Your task to perform on an android device: install app "Etsy: Buy & Sell Unique Items" Image 0: 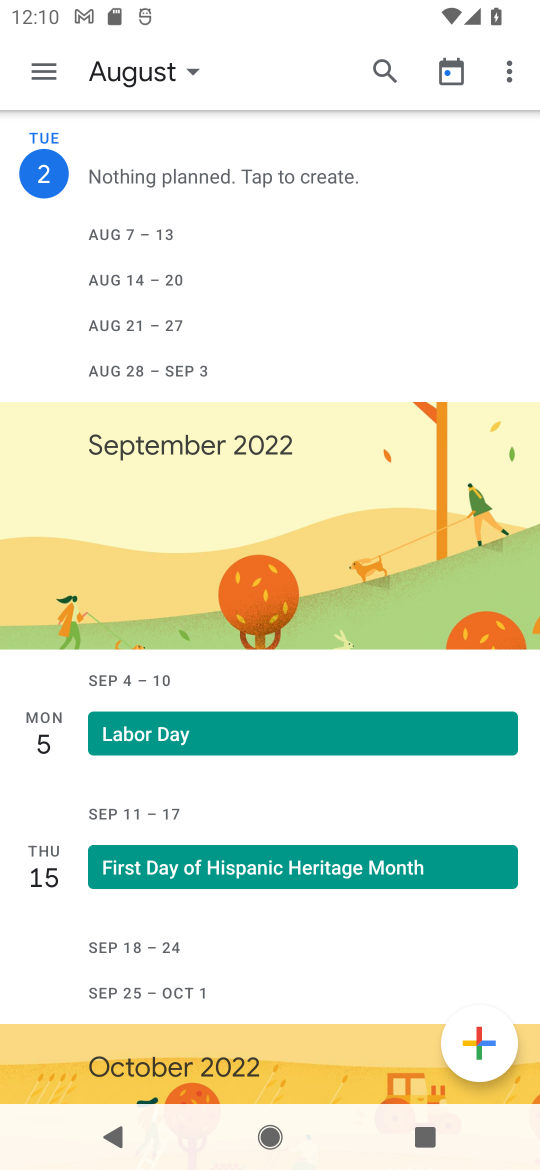
Step 0: press home button
Your task to perform on an android device: install app "Etsy: Buy & Sell Unique Items" Image 1: 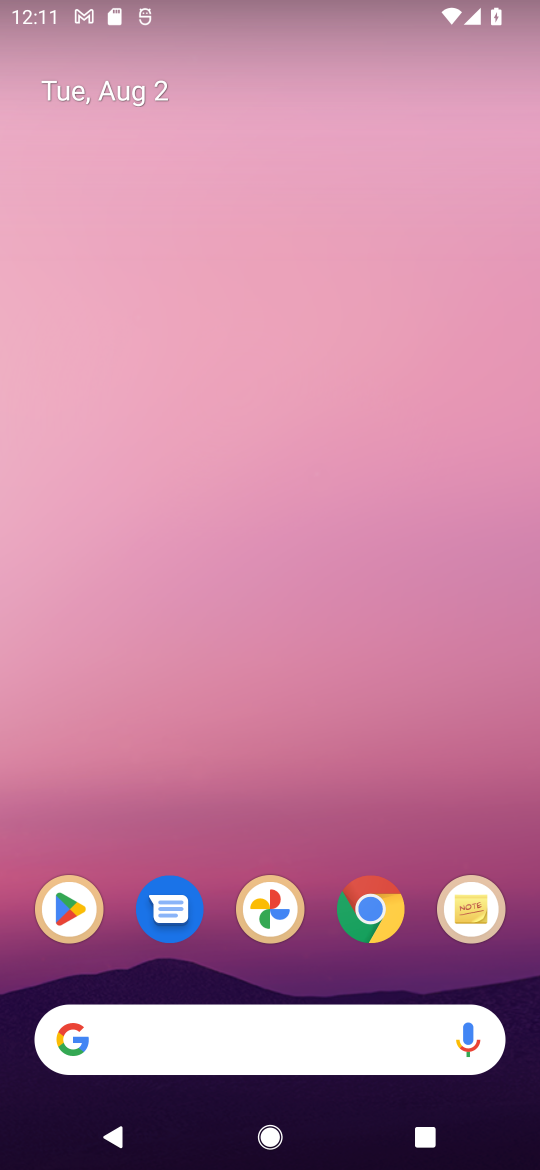
Step 1: click (79, 908)
Your task to perform on an android device: install app "Etsy: Buy & Sell Unique Items" Image 2: 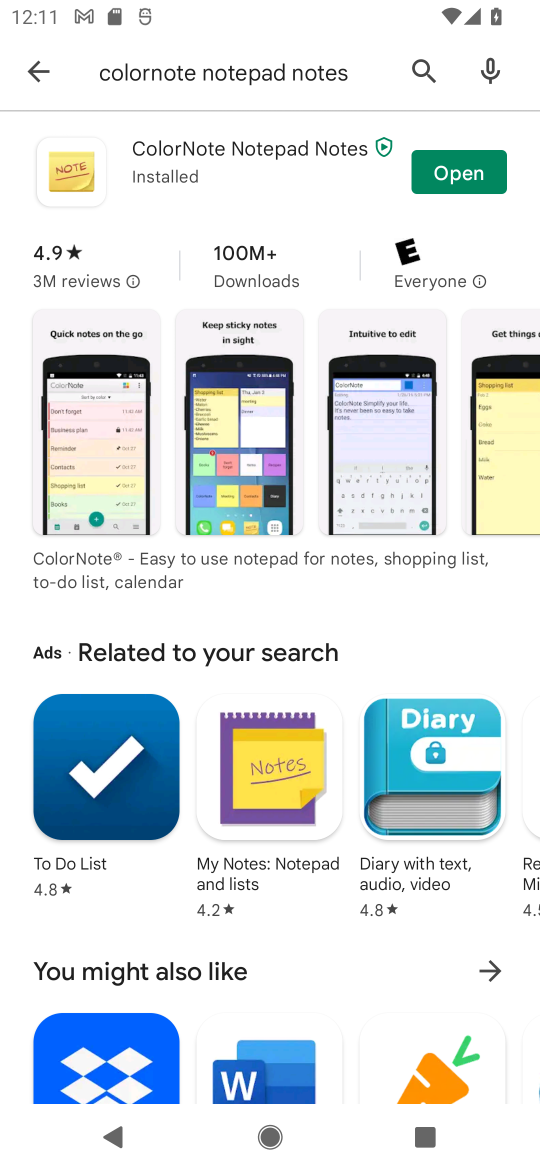
Step 2: click (422, 63)
Your task to perform on an android device: install app "Etsy: Buy & Sell Unique Items" Image 3: 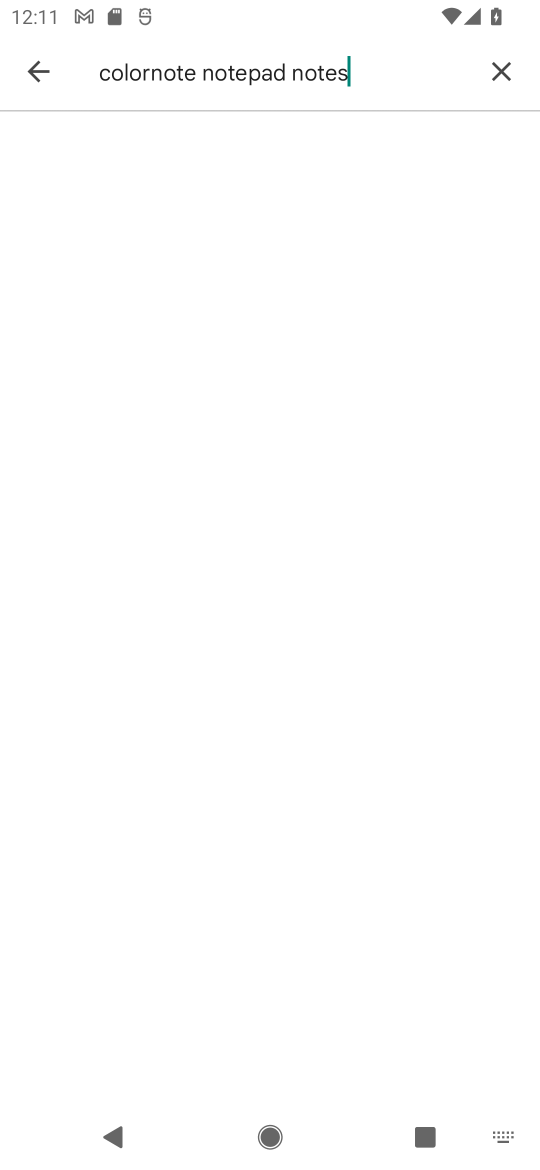
Step 3: click (488, 69)
Your task to perform on an android device: install app "Etsy: Buy & Sell Unique Items" Image 4: 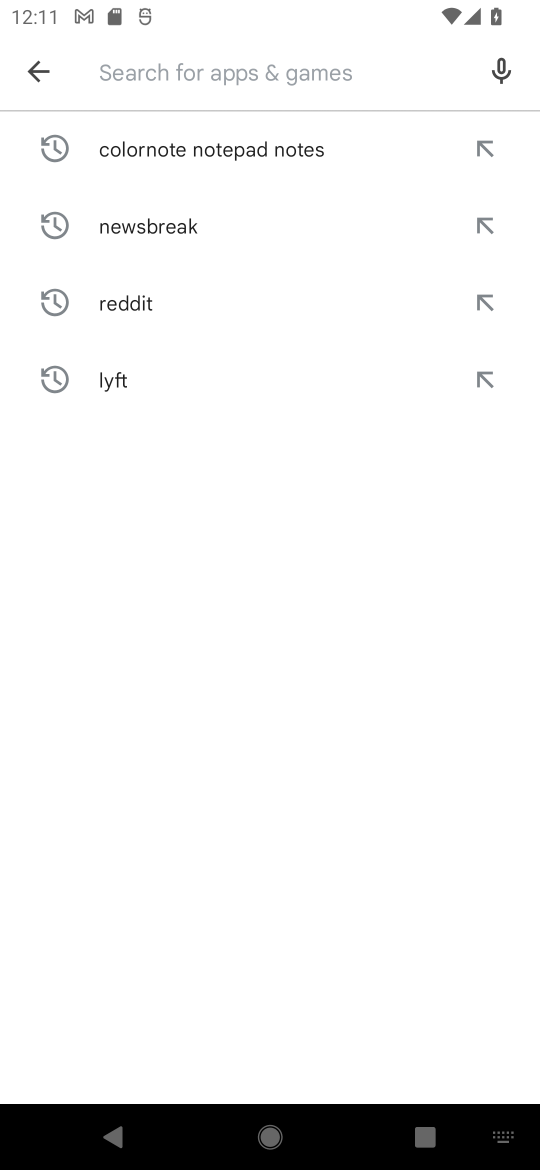
Step 4: type "Etsy: Buy & Sell Unique Items"
Your task to perform on an android device: install app "Etsy: Buy & Sell Unique Items" Image 5: 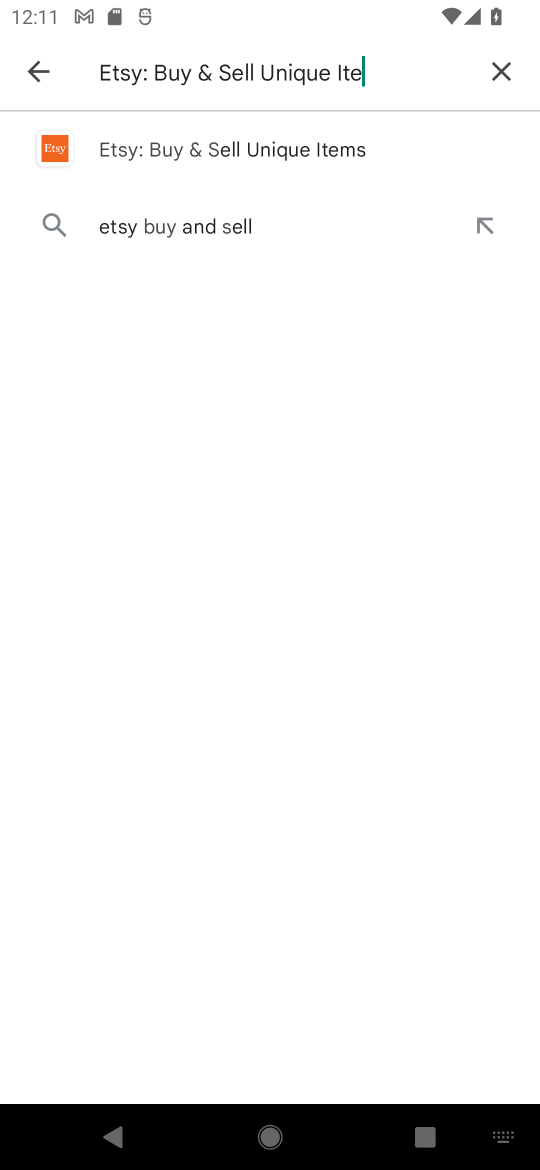
Step 5: type ""
Your task to perform on an android device: install app "Etsy: Buy & Sell Unique Items" Image 6: 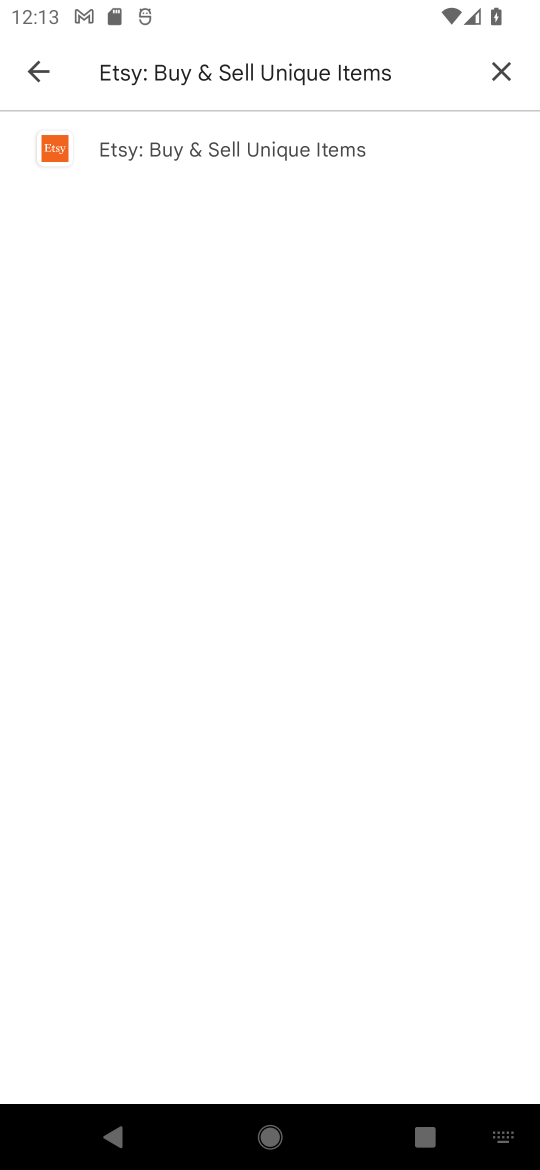
Step 6: click (266, 157)
Your task to perform on an android device: install app "Etsy: Buy & Sell Unique Items" Image 7: 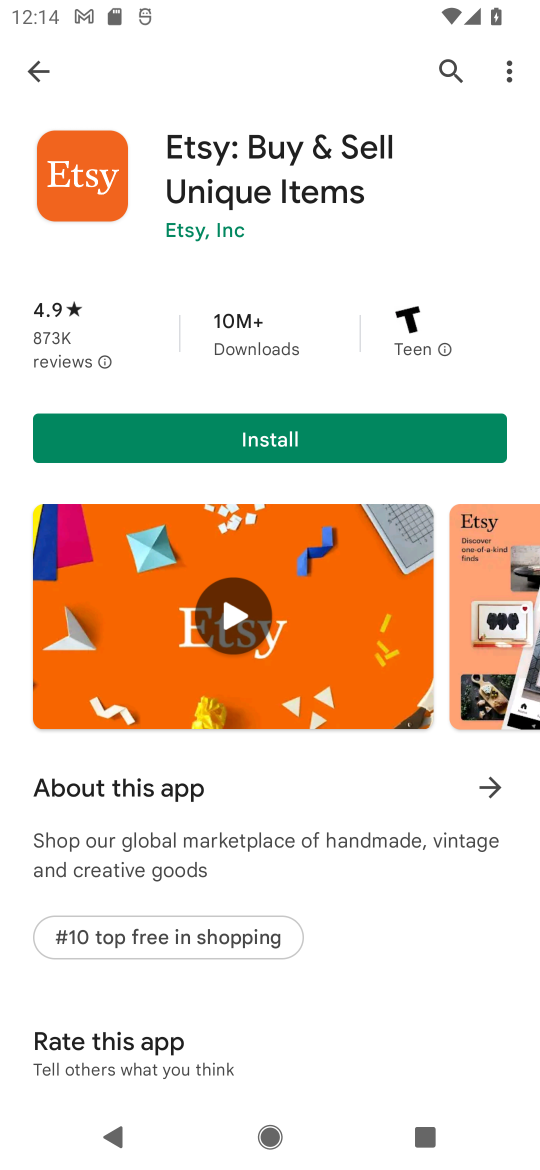
Step 7: click (424, 421)
Your task to perform on an android device: install app "Etsy: Buy & Sell Unique Items" Image 8: 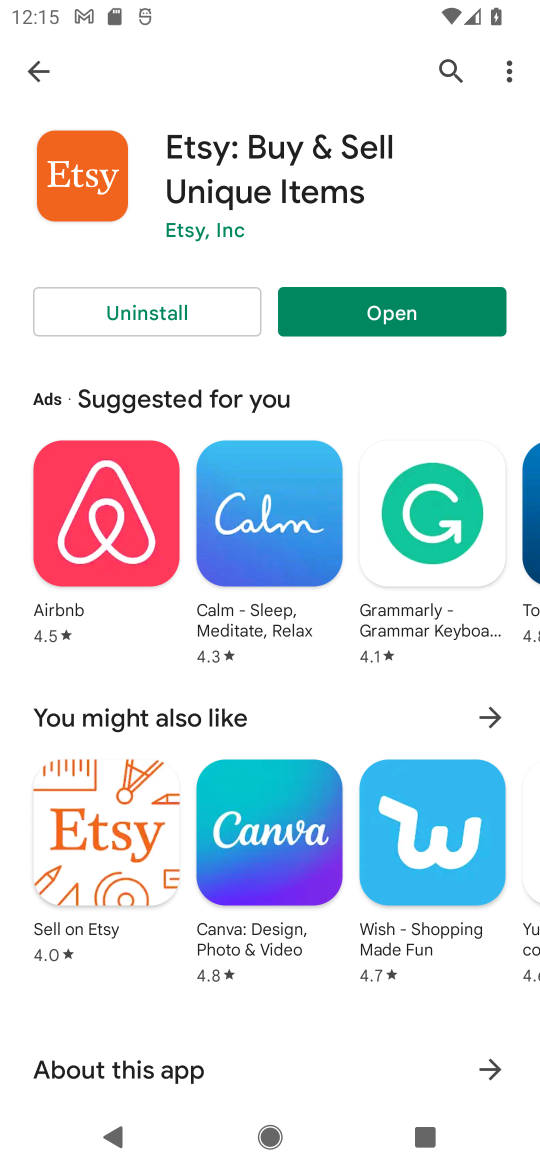
Step 8: task complete